Your task to perform on an android device: change keyboard looks Image 0: 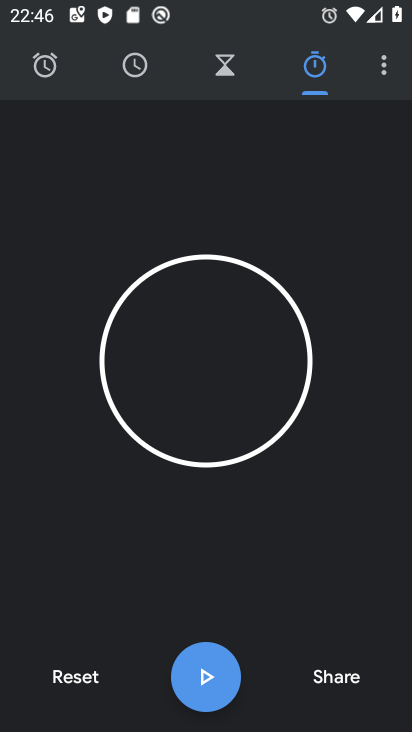
Step 0: press home button
Your task to perform on an android device: change keyboard looks Image 1: 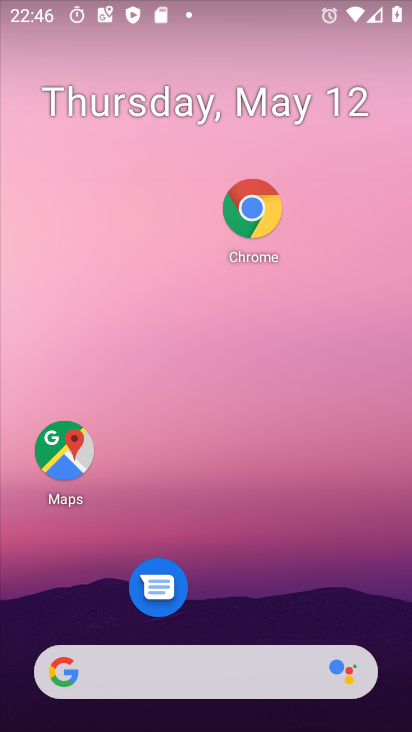
Step 1: drag from (243, 568) to (244, 24)
Your task to perform on an android device: change keyboard looks Image 2: 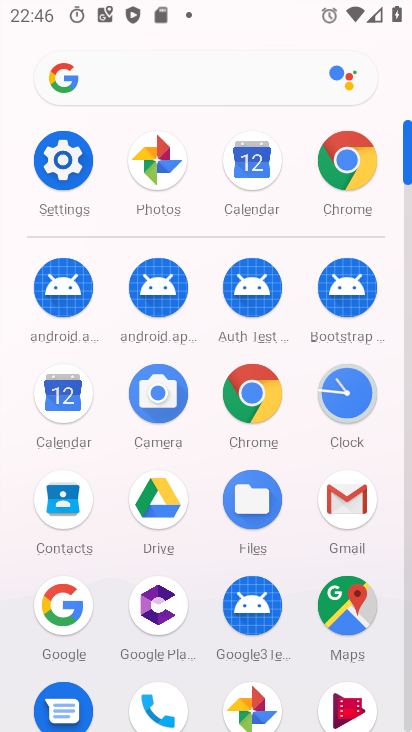
Step 2: click (58, 160)
Your task to perform on an android device: change keyboard looks Image 3: 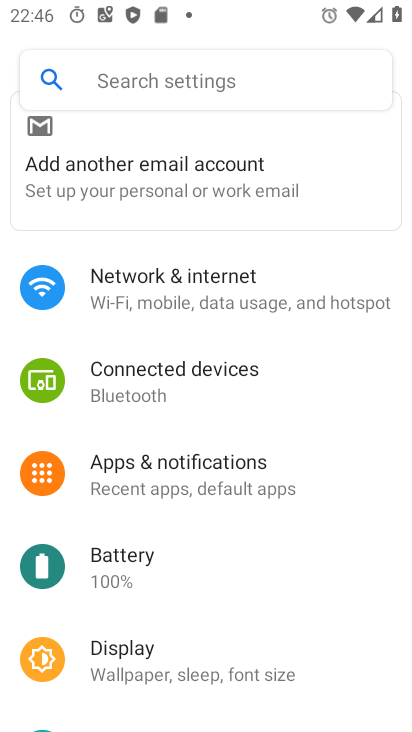
Step 3: drag from (232, 652) to (277, 161)
Your task to perform on an android device: change keyboard looks Image 4: 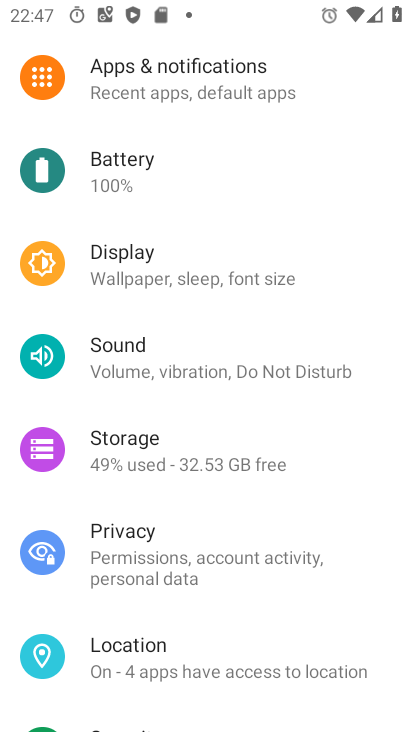
Step 4: drag from (185, 598) to (246, 258)
Your task to perform on an android device: change keyboard looks Image 5: 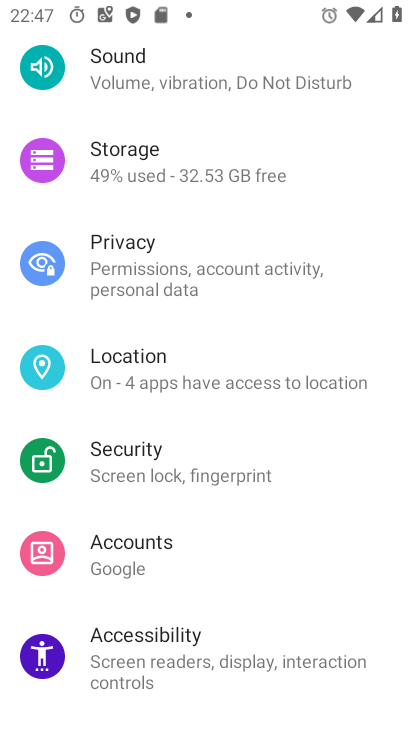
Step 5: click (214, 386)
Your task to perform on an android device: change keyboard looks Image 6: 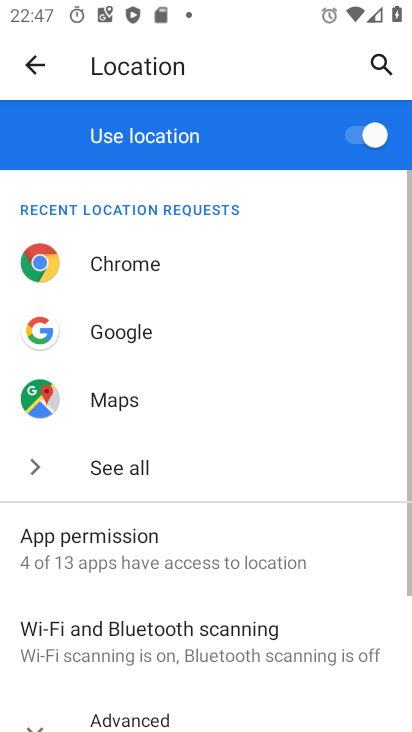
Step 6: press back button
Your task to perform on an android device: change keyboard looks Image 7: 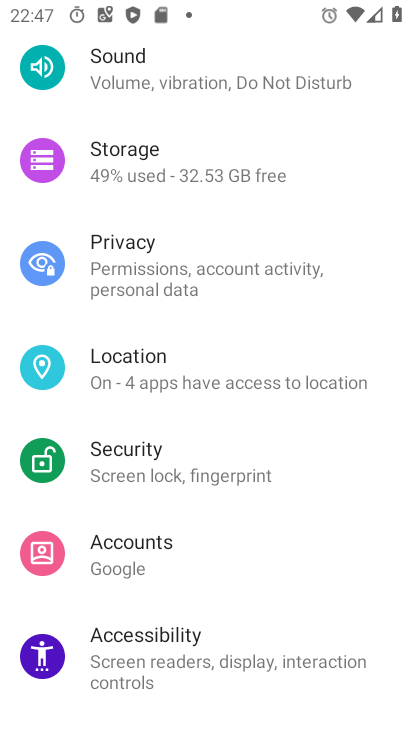
Step 7: click (184, 644)
Your task to perform on an android device: change keyboard looks Image 8: 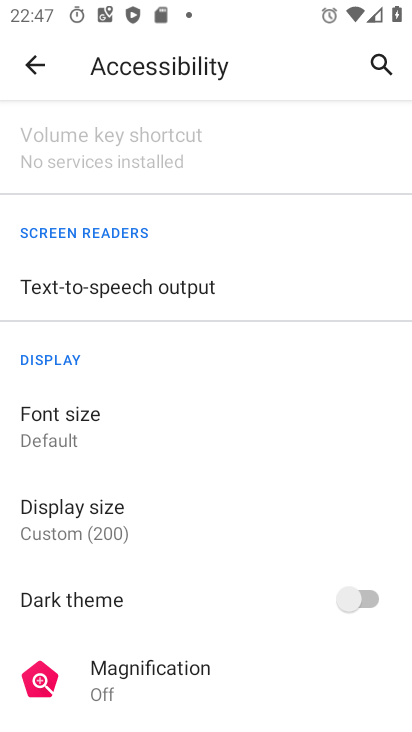
Step 8: press back button
Your task to perform on an android device: change keyboard looks Image 9: 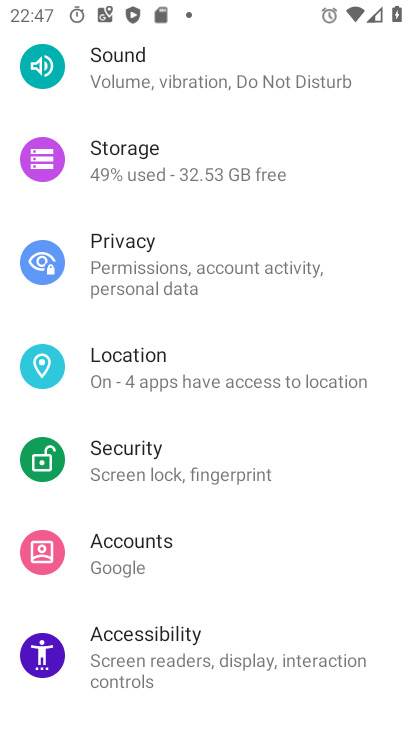
Step 9: drag from (136, 618) to (197, 189)
Your task to perform on an android device: change keyboard looks Image 10: 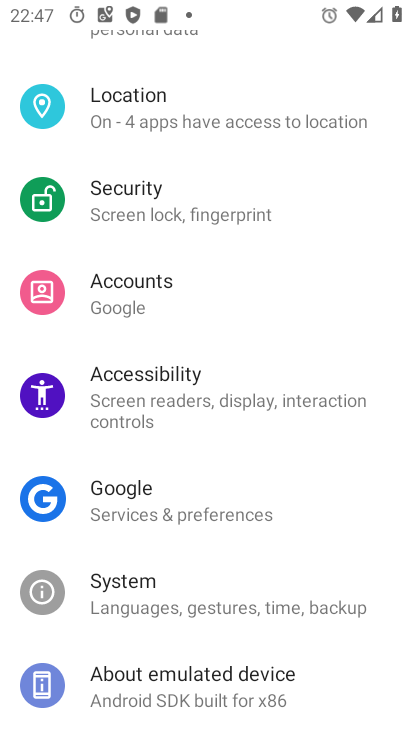
Step 10: click (132, 603)
Your task to perform on an android device: change keyboard looks Image 11: 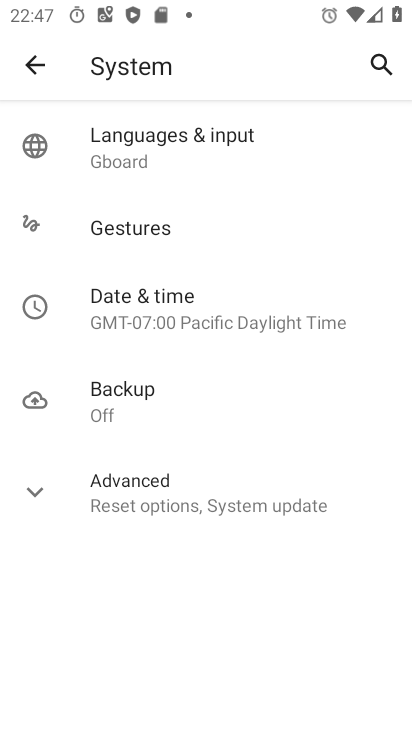
Step 11: click (168, 150)
Your task to perform on an android device: change keyboard looks Image 12: 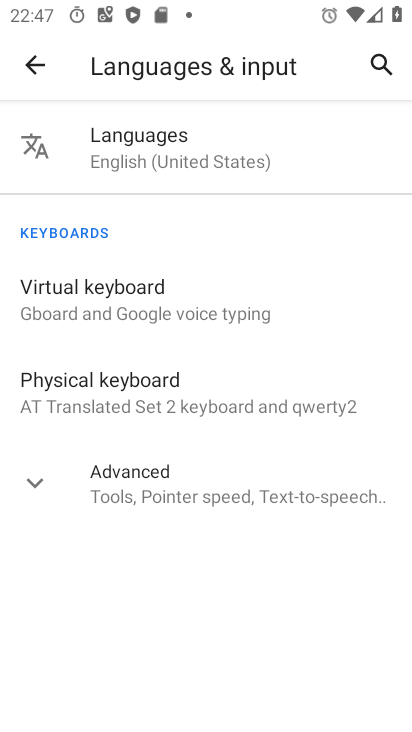
Step 12: click (162, 291)
Your task to perform on an android device: change keyboard looks Image 13: 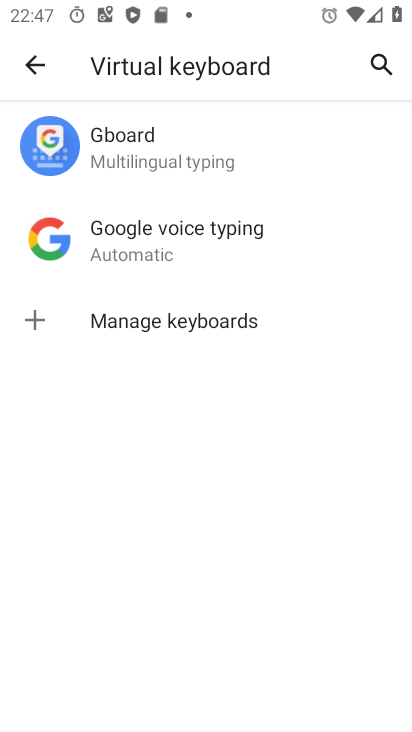
Step 13: click (129, 162)
Your task to perform on an android device: change keyboard looks Image 14: 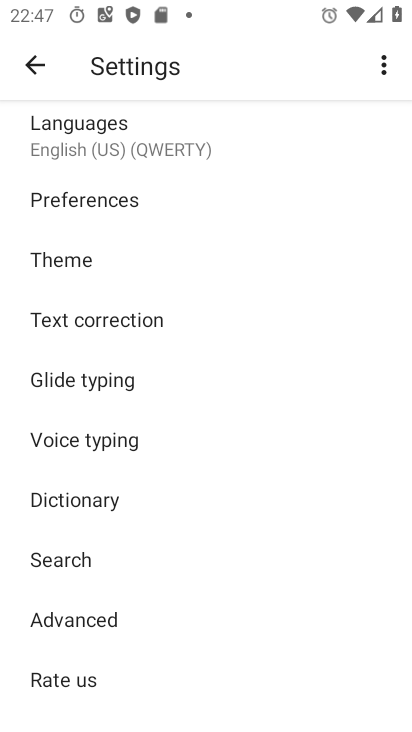
Step 14: click (89, 255)
Your task to perform on an android device: change keyboard looks Image 15: 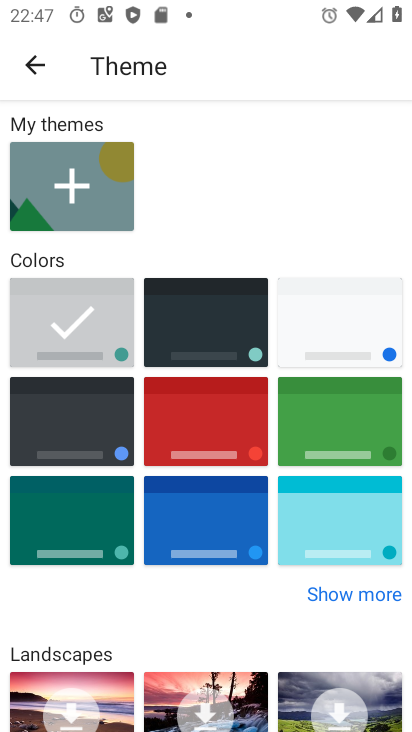
Step 15: click (243, 408)
Your task to perform on an android device: change keyboard looks Image 16: 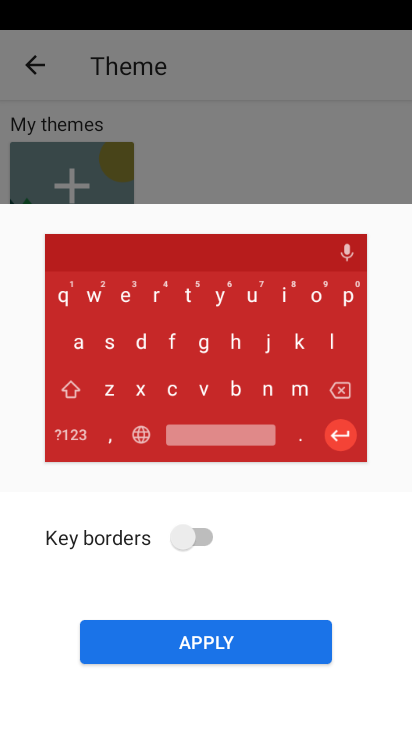
Step 16: click (278, 627)
Your task to perform on an android device: change keyboard looks Image 17: 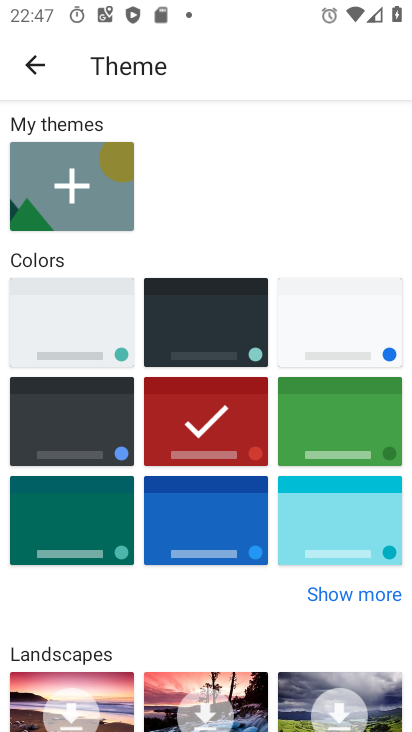
Step 17: task complete